Your task to perform on an android device: see tabs open on other devices in the chrome app Image 0: 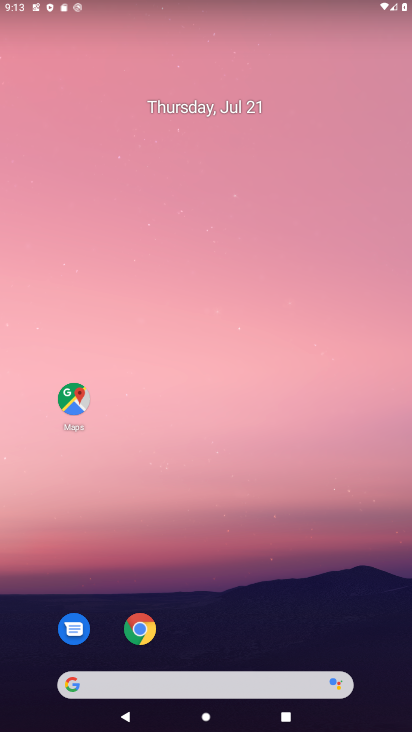
Step 0: click (125, 621)
Your task to perform on an android device: see tabs open on other devices in the chrome app Image 1: 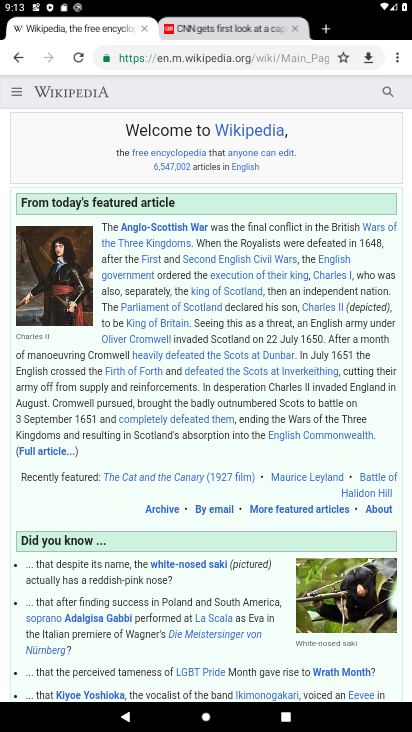
Step 1: click (399, 56)
Your task to perform on an android device: see tabs open on other devices in the chrome app Image 2: 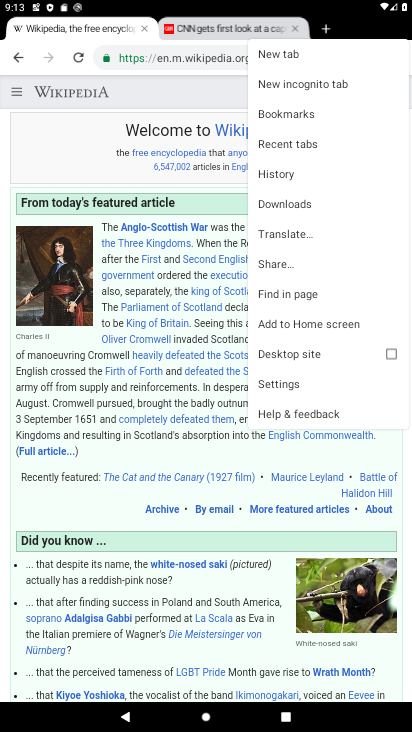
Step 2: click (307, 158)
Your task to perform on an android device: see tabs open on other devices in the chrome app Image 3: 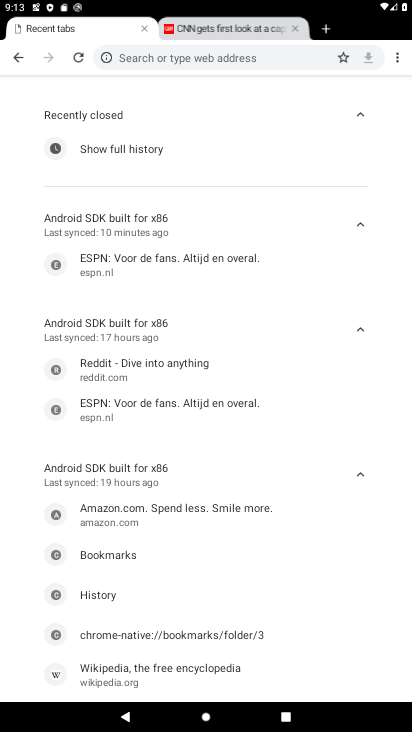
Step 3: task complete